Your task to perform on an android device: Open calendar and show me the third week of next month Image 0: 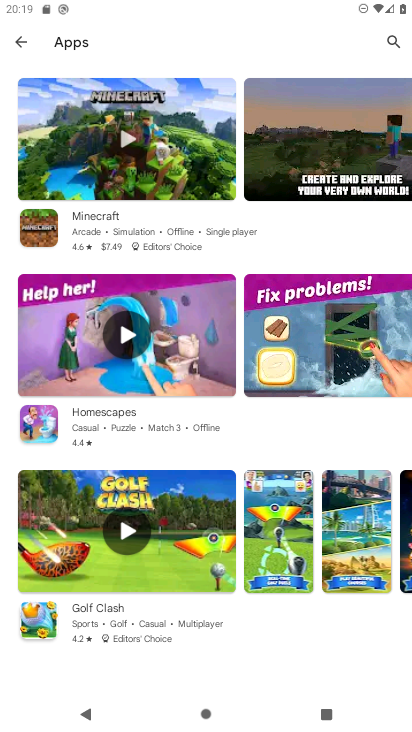
Step 0: press home button
Your task to perform on an android device: Open calendar and show me the third week of next month Image 1: 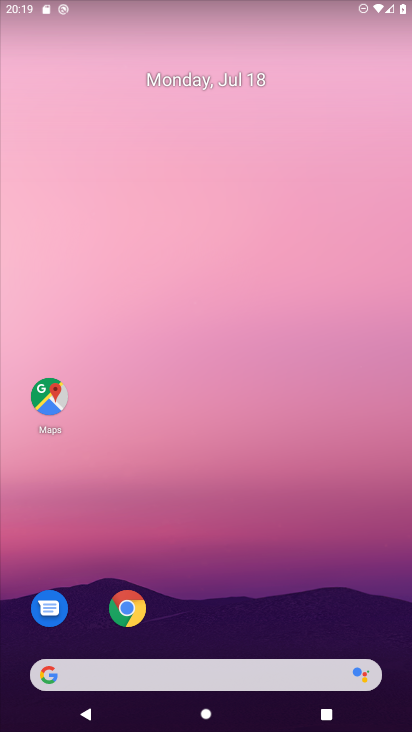
Step 1: drag from (199, 499) to (229, 172)
Your task to perform on an android device: Open calendar and show me the third week of next month Image 2: 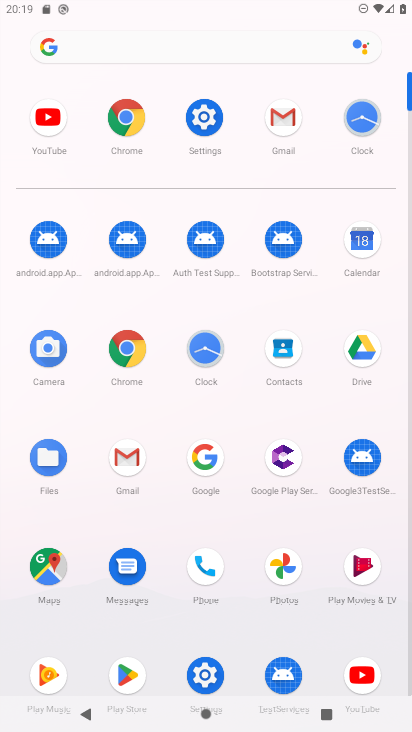
Step 2: click (359, 247)
Your task to perform on an android device: Open calendar and show me the third week of next month Image 3: 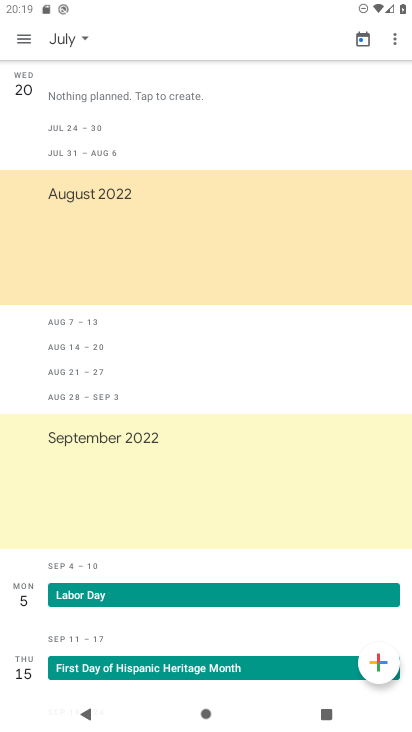
Step 3: click (76, 42)
Your task to perform on an android device: Open calendar and show me the third week of next month Image 4: 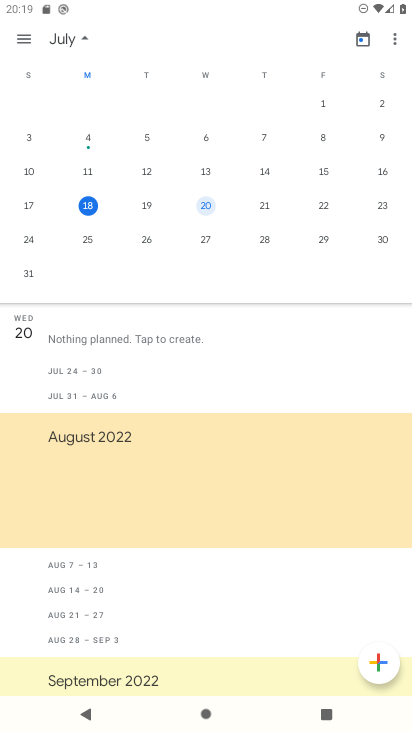
Step 4: drag from (380, 273) to (12, 220)
Your task to perform on an android device: Open calendar and show me the third week of next month Image 5: 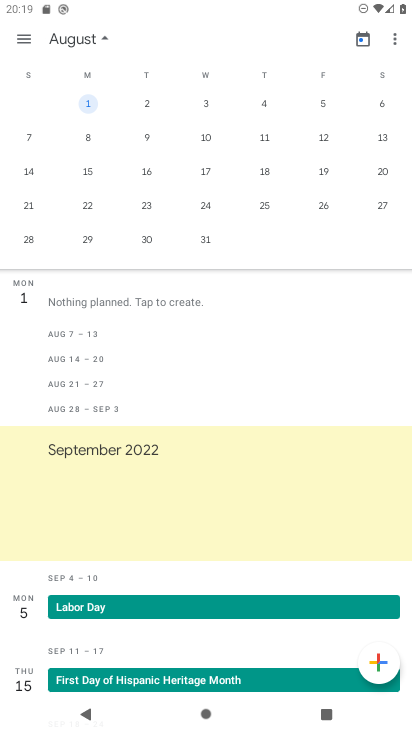
Step 5: click (207, 175)
Your task to perform on an android device: Open calendar and show me the third week of next month Image 6: 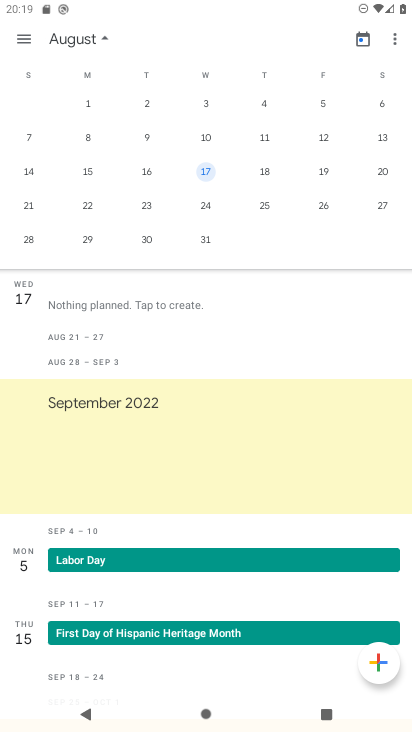
Step 6: task complete